Your task to perform on an android device: Open eBay Image 0: 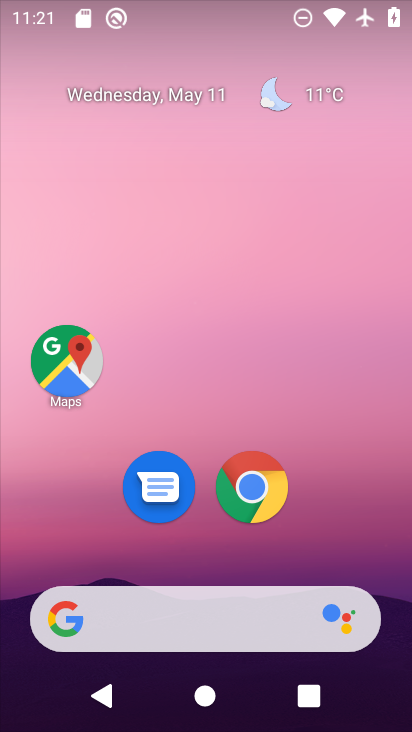
Step 0: drag from (328, 534) to (249, 9)
Your task to perform on an android device: Open eBay Image 1: 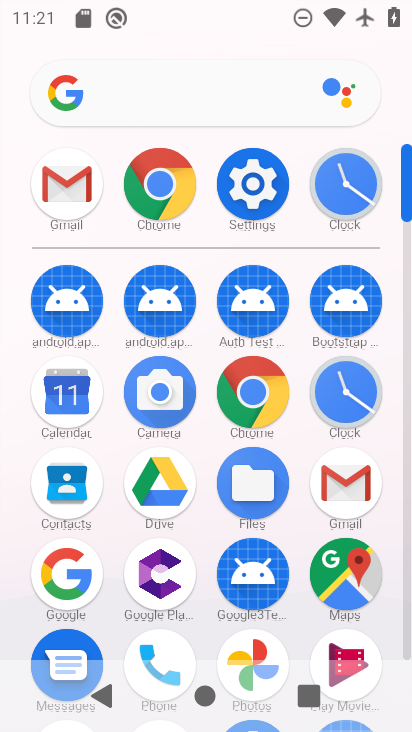
Step 1: drag from (16, 563) to (19, 307)
Your task to perform on an android device: Open eBay Image 2: 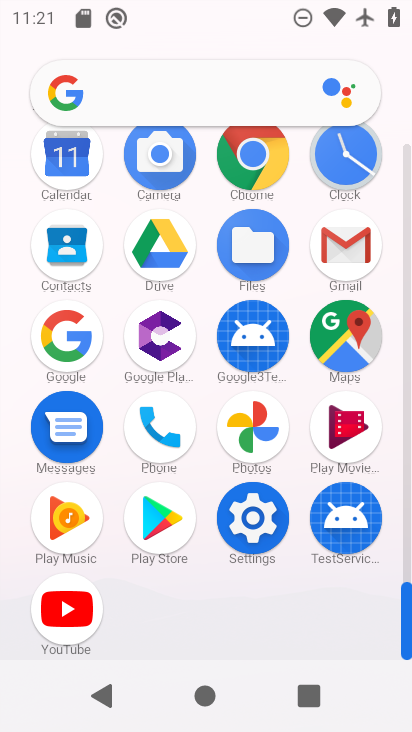
Step 2: click (253, 153)
Your task to perform on an android device: Open eBay Image 3: 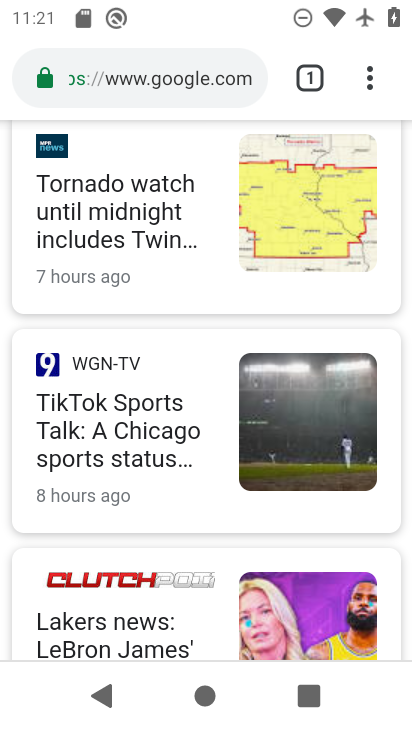
Step 3: click (149, 80)
Your task to perform on an android device: Open eBay Image 4: 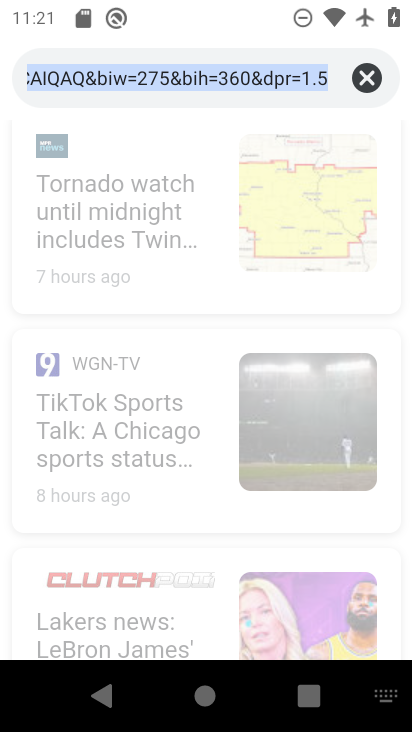
Step 4: click (365, 85)
Your task to perform on an android device: Open eBay Image 5: 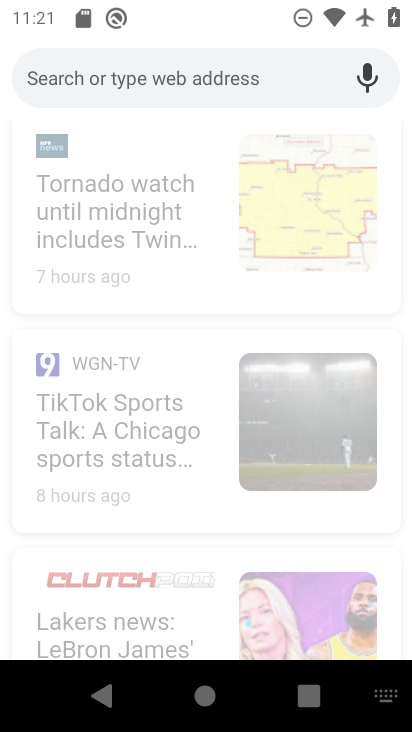
Step 5: click (141, 67)
Your task to perform on an android device: Open eBay Image 6: 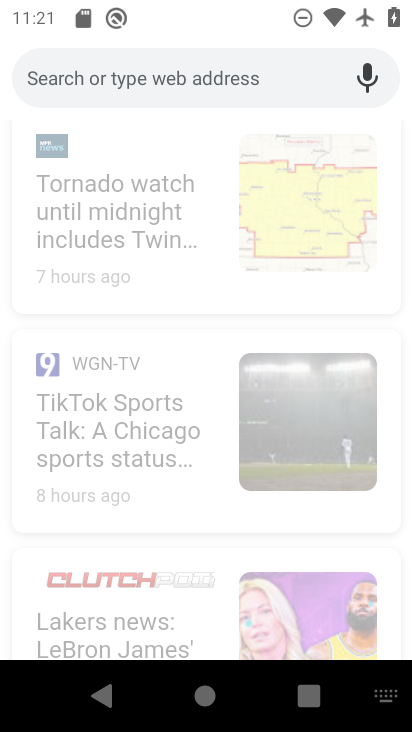
Step 6: type "eBay"
Your task to perform on an android device: Open eBay Image 7: 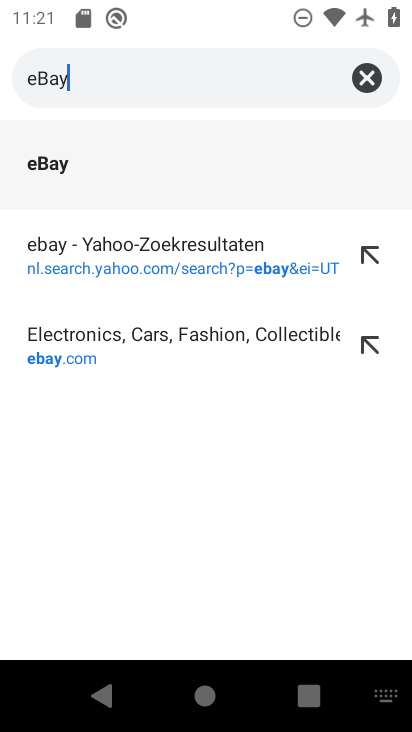
Step 7: type ""
Your task to perform on an android device: Open eBay Image 8: 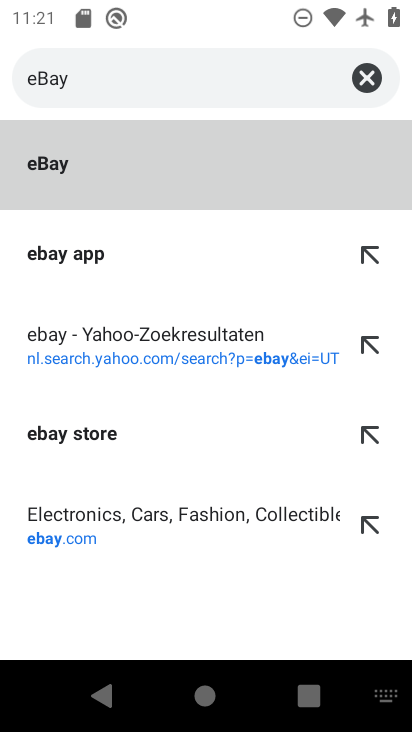
Step 8: click (102, 513)
Your task to perform on an android device: Open eBay Image 9: 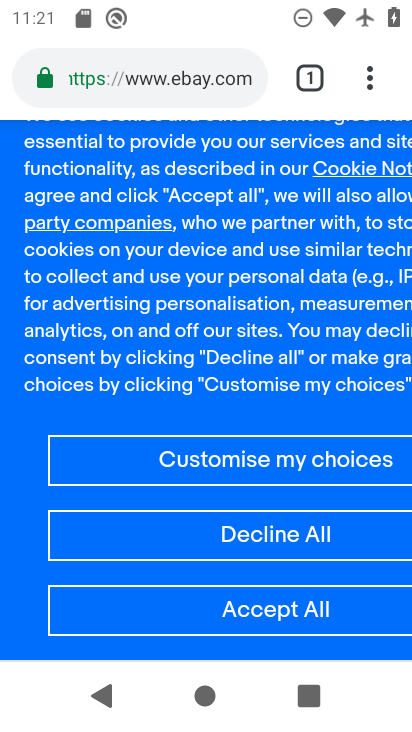
Step 9: click (203, 623)
Your task to perform on an android device: Open eBay Image 10: 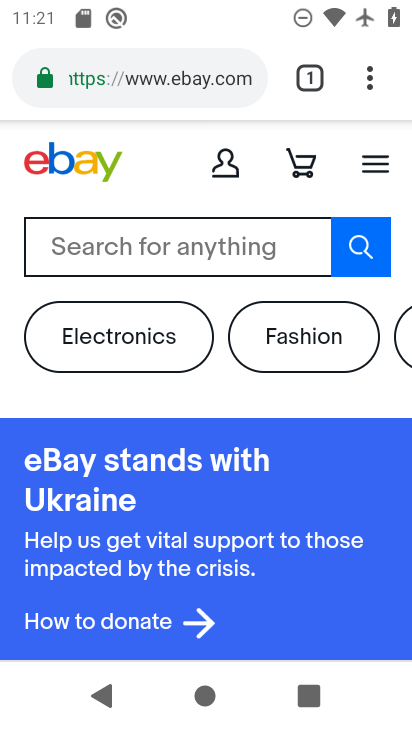
Step 10: task complete